Your task to perform on an android device: Go to Wikipedia Image 0: 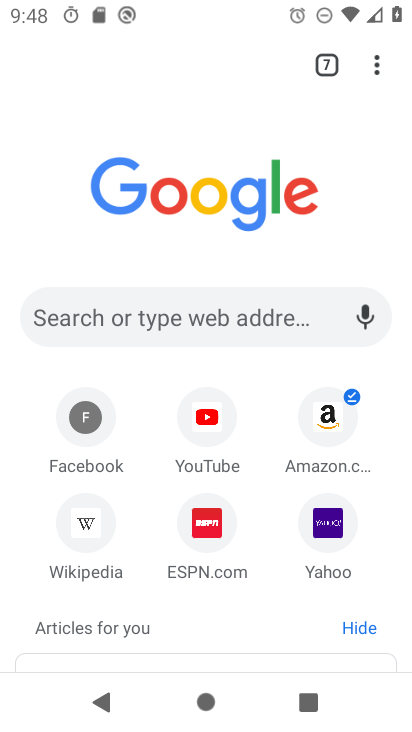
Step 0: click (100, 542)
Your task to perform on an android device: Go to Wikipedia Image 1: 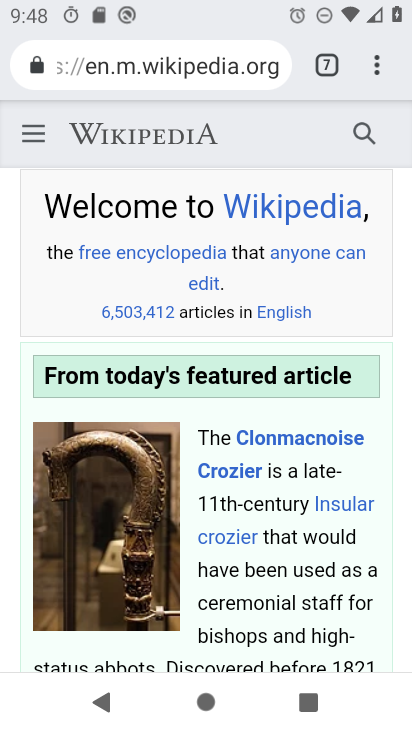
Step 1: task complete